Your task to perform on an android device: turn off airplane mode Image 0: 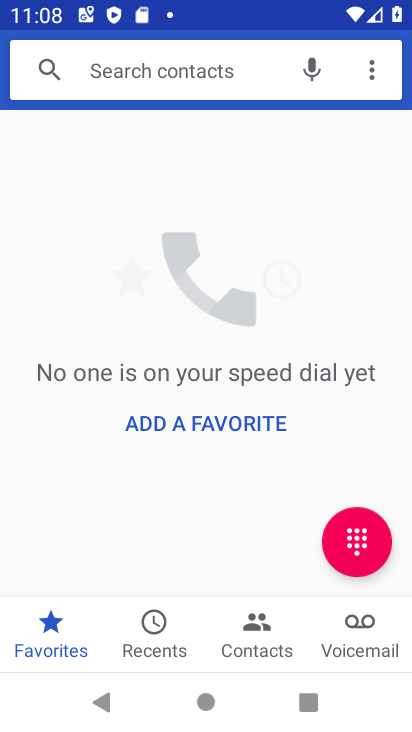
Step 0: press home button
Your task to perform on an android device: turn off airplane mode Image 1: 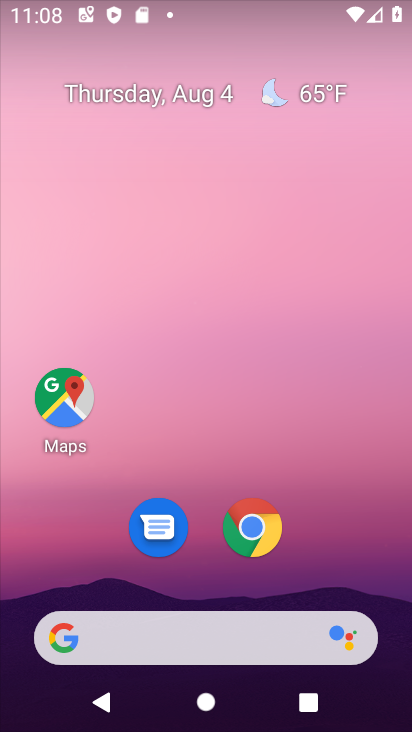
Step 1: drag from (171, 692) to (306, 124)
Your task to perform on an android device: turn off airplane mode Image 2: 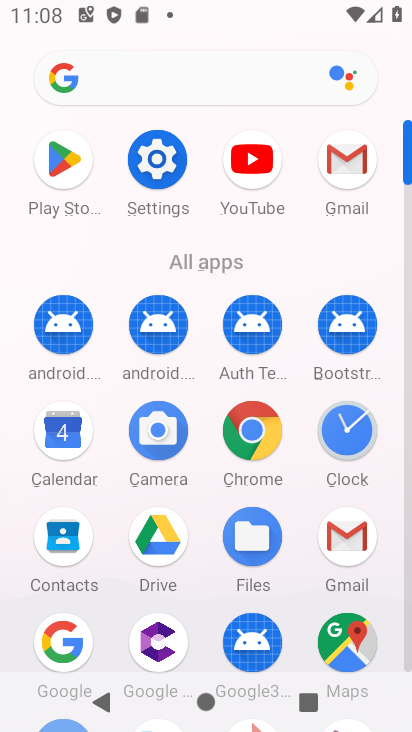
Step 2: click (165, 161)
Your task to perform on an android device: turn off airplane mode Image 3: 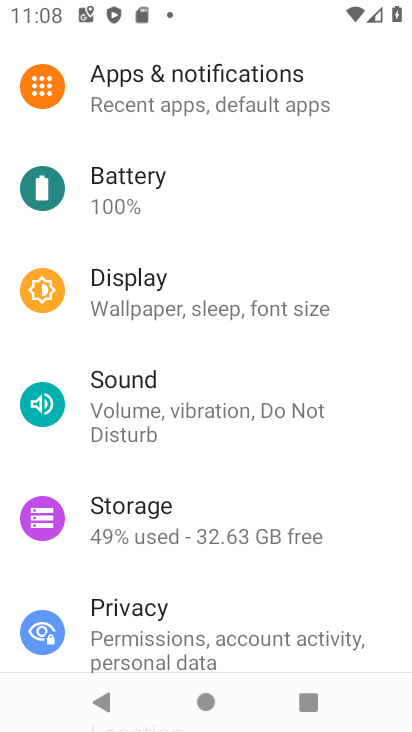
Step 3: drag from (281, 131) to (221, 669)
Your task to perform on an android device: turn off airplane mode Image 4: 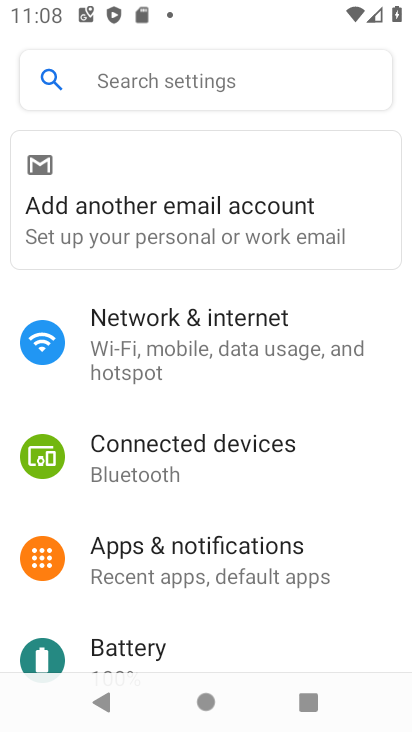
Step 4: click (249, 321)
Your task to perform on an android device: turn off airplane mode Image 5: 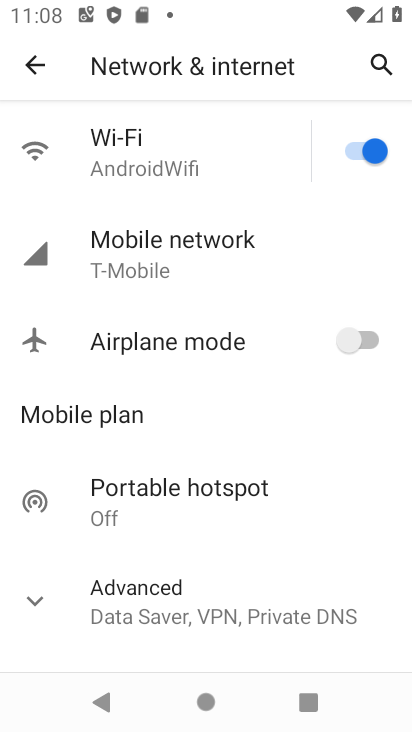
Step 5: task complete